Your task to perform on an android device: turn off data saver in the chrome app Image 0: 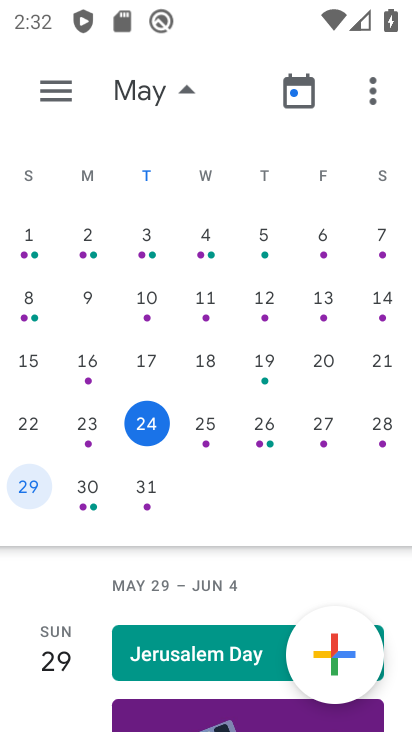
Step 0: press home button
Your task to perform on an android device: turn off data saver in the chrome app Image 1: 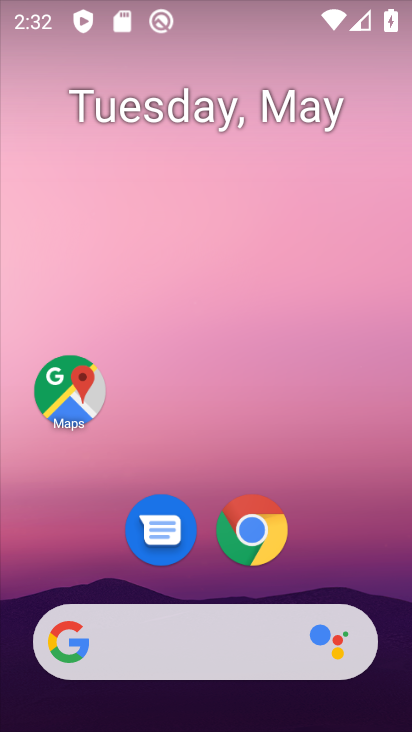
Step 1: click (256, 515)
Your task to perform on an android device: turn off data saver in the chrome app Image 2: 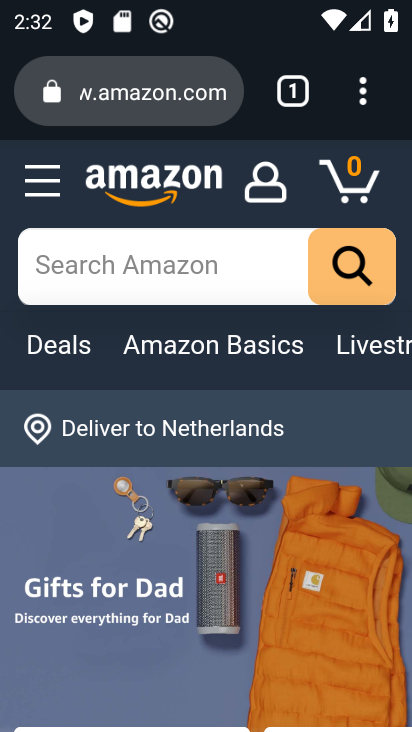
Step 2: click (370, 98)
Your task to perform on an android device: turn off data saver in the chrome app Image 3: 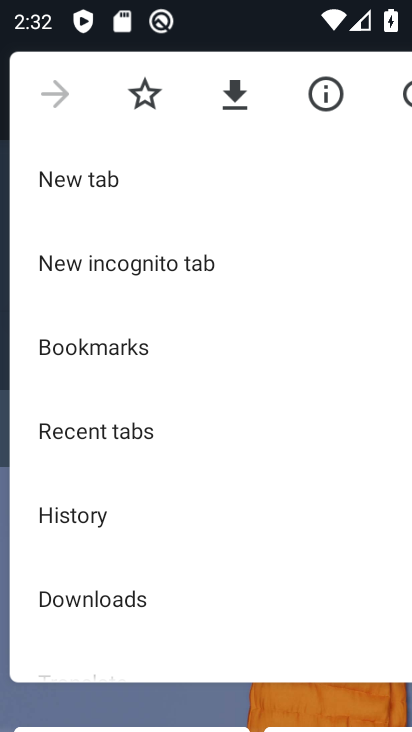
Step 3: drag from (31, 604) to (304, 96)
Your task to perform on an android device: turn off data saver in the chrome app Image 4: 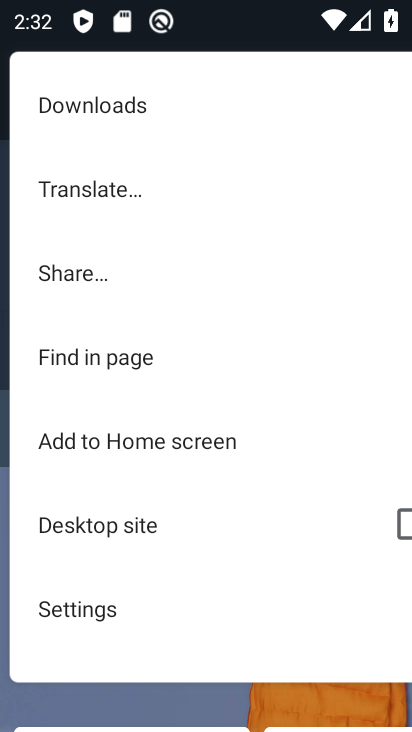
Step 4: drag from (120, 610) to (308, 200)
Your task to perform on an android device: turn off data saver in the chrome app Image 5: 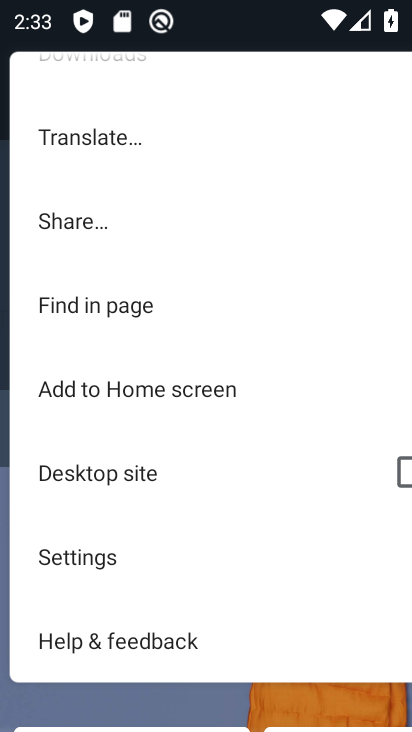
Step 5: click (109, 544)
Your task to perform on an android device: turn off data saver in the chrome app Image 6: 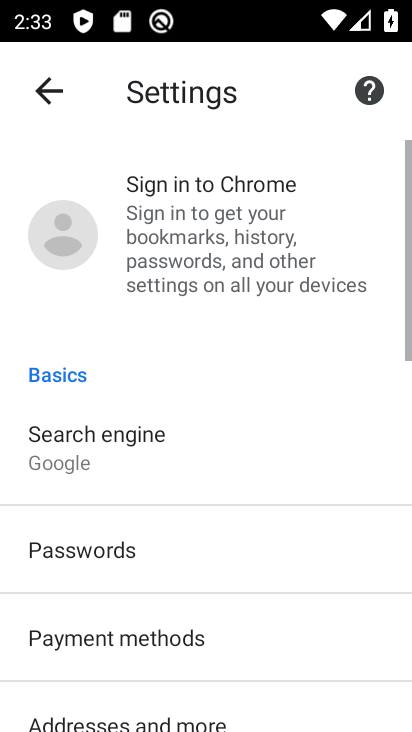
Step 6: drag from (75, 688) to (327, 153)
Your task to perform on an android device: turn off data saver in the chrome app Image 7: 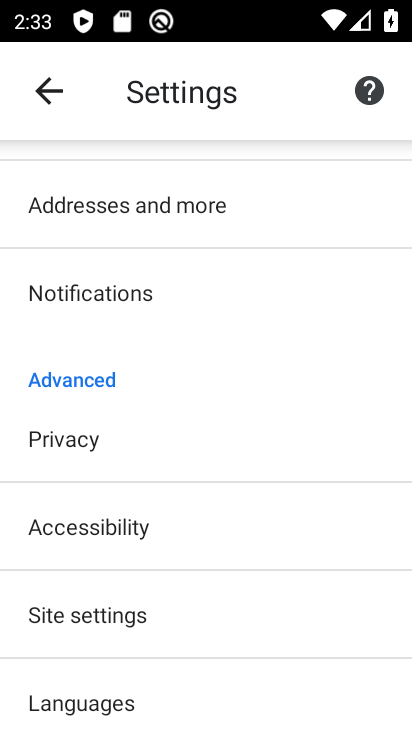
Step 7: drag from (100, 664) to (195, 286)
Your task to perform on an android device: turn off data saver in the chrome app Image 8: 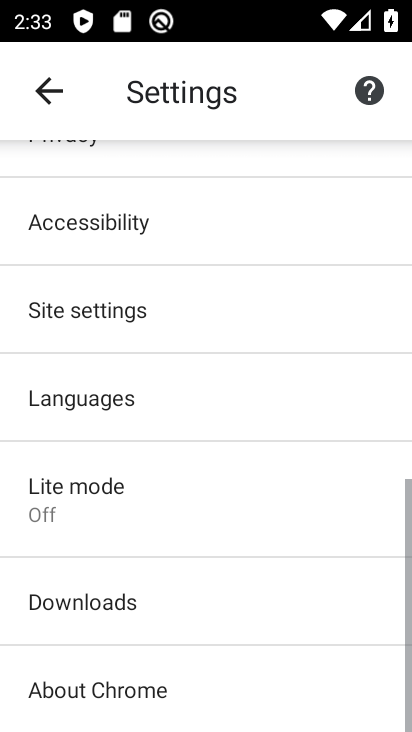
Step 8: click (90, 476)
Your task to perform on an android device: turn off data saver in the chrome app Image 9: 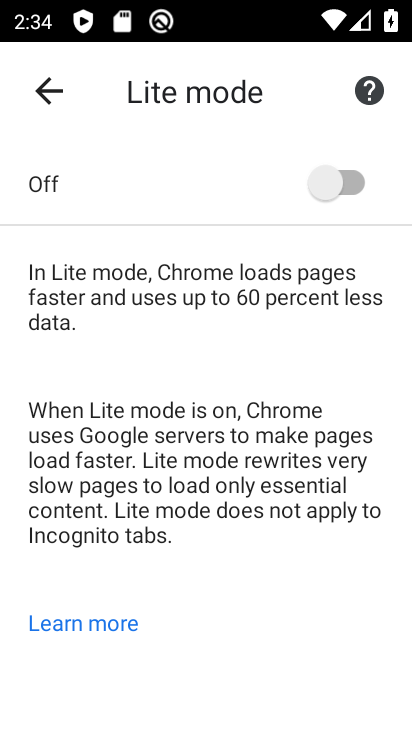
Step 9: task complete